Your task to perform on an android device: Go to accessibility settings Image 0: 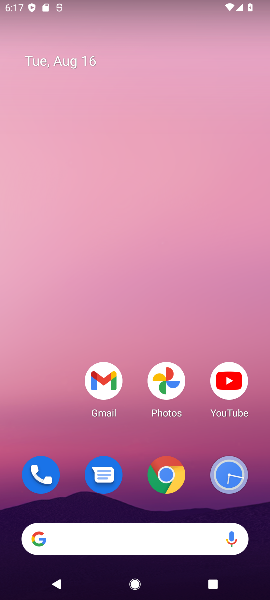
Step 0: drag from (201, 505) to (73, 48)
Your task to perform on an android device: Go to accessibility settings Image 1: 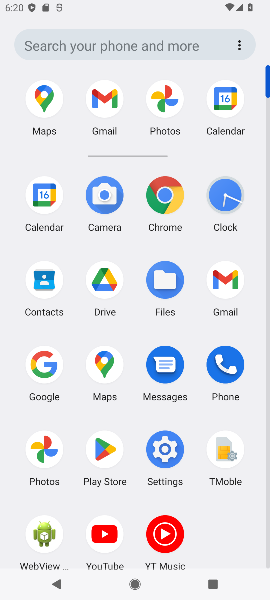
Step 1: click (166, 443)
Your task to perform on an android device: Go to accessibility settings Image 2: 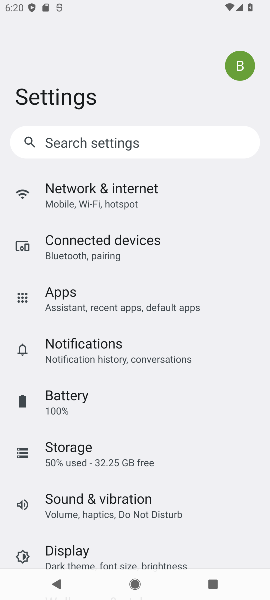
Step 2: drag from (103, 510) to (31, 91)
Your task to perform on an android device: Go to accessibility settings Image 3: 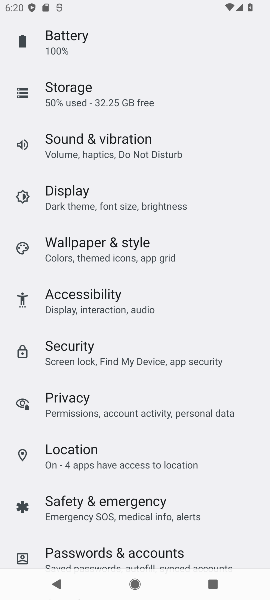
Step 3: click (68, 300)
Your task to perform on an android device: Go to accessibility settings Image 4: 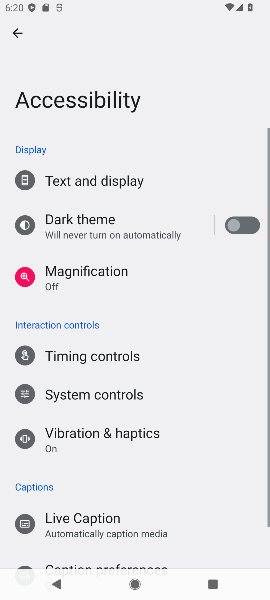
Step 4: task complete